Your task to perform on an android device: Open Chrome and go to settings Image 0: 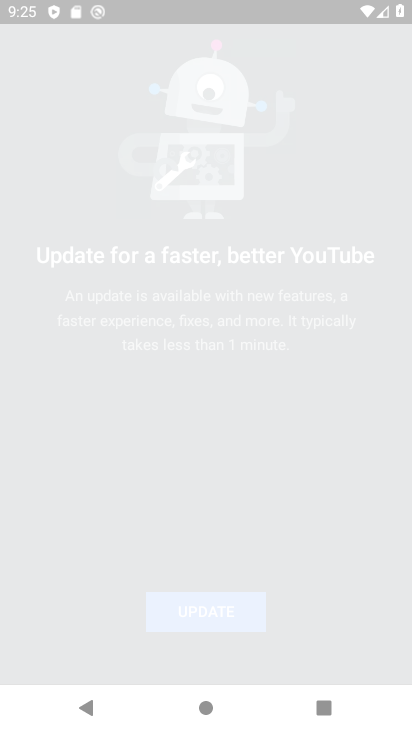
Step 0: click (292, 413)
Your task to perform on an android device: Open Chrome and go to settings Image 1: 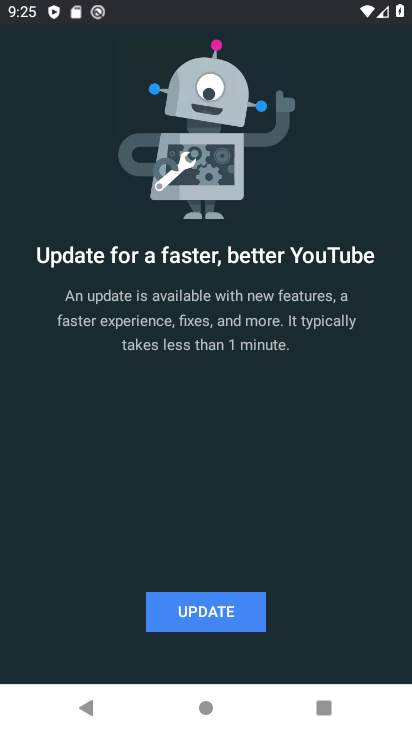
Step 1: press back button
Your task to perform on an android device: Open Chrome and go to settings Image 2: 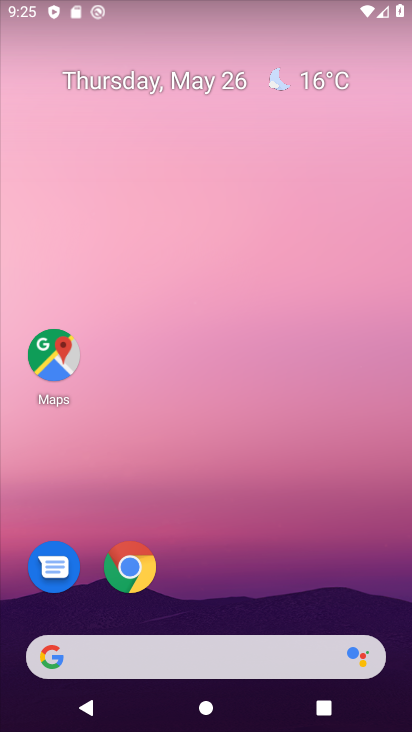
Step 2: click (136, 562)
Your task to perform on an android device: Open Chrome and go to settings Image 3: 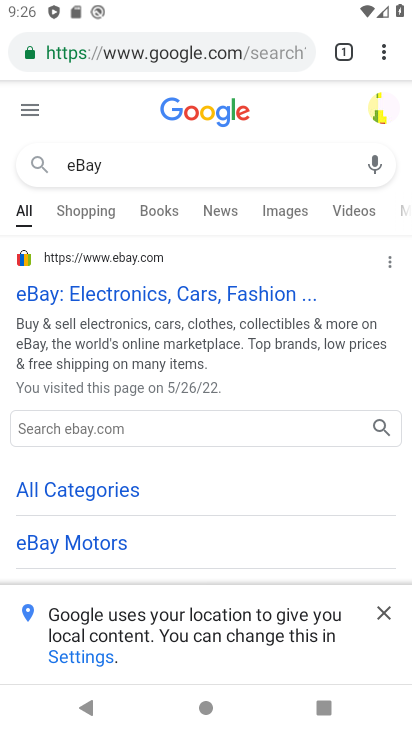
Step 3: click (384, 52)
Your task to perform on an android device: Open Chrome and go to settings Image 4: 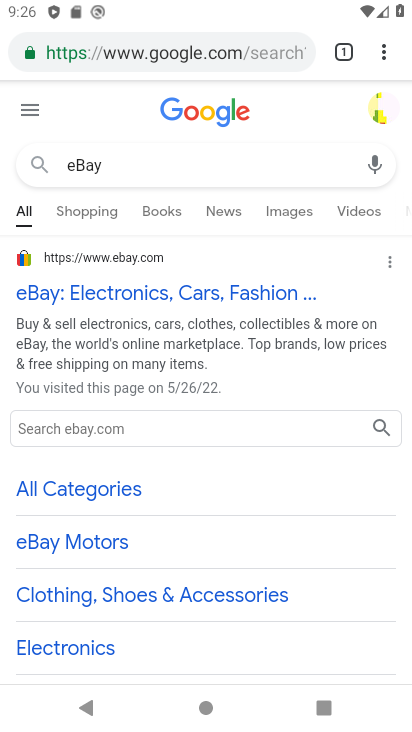
Step 4: click (383, 51)
Your task to perform on an android device: Open Chrome and go to settings Image 5: 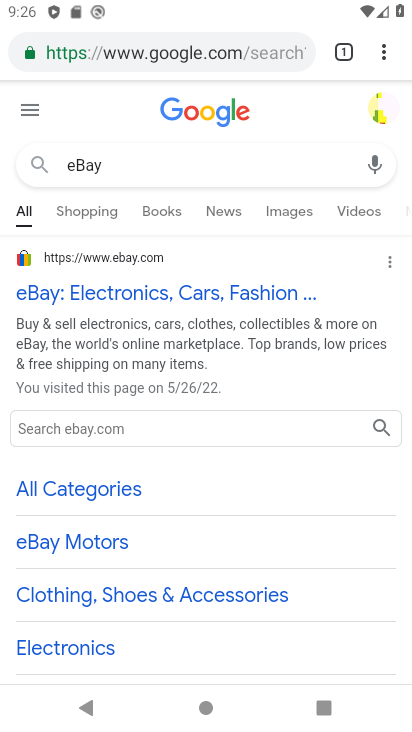
Step 5: click (383, 51)
Your task to perform on an android device: Open Chrome and go to settings Image 6: 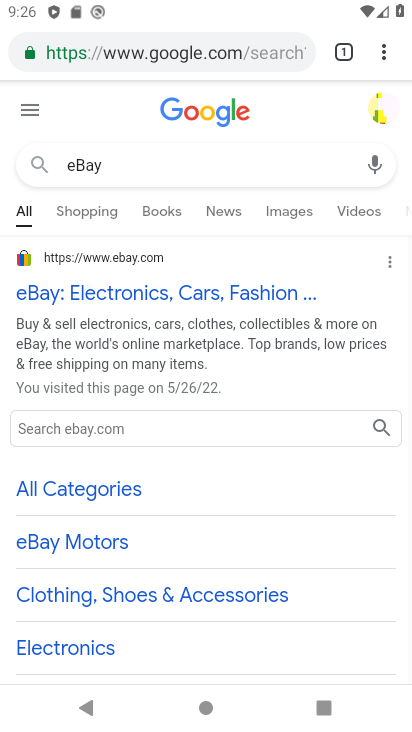
Step 6: click (383, 51)
Your task to perform on an android device: Open Chrome and go to settings Image 7: 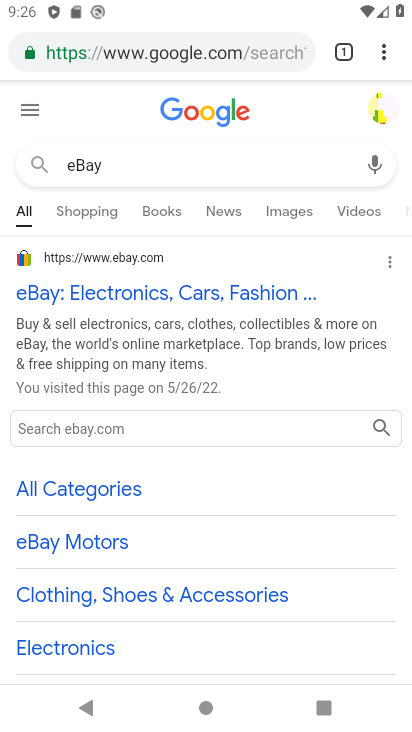
Step 7: click (382, 60)
Your task to perform on an android device: Open Chrome and go to settings Image 8: 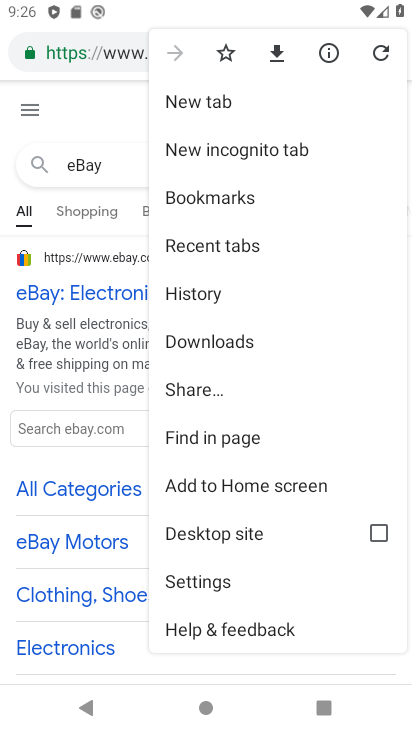
Step 8: click (206, 573)
Your task to perform on an android device: Open Chrome and go to settings Image 9: 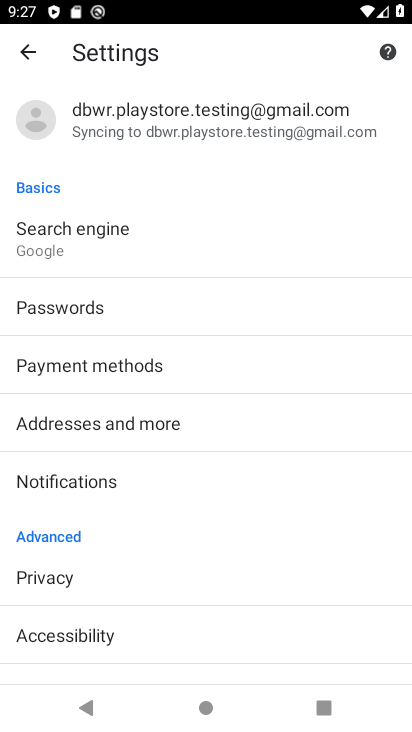
Step 9: task complete